Your task to perform on an android device: open device folders in google photos Image 0: 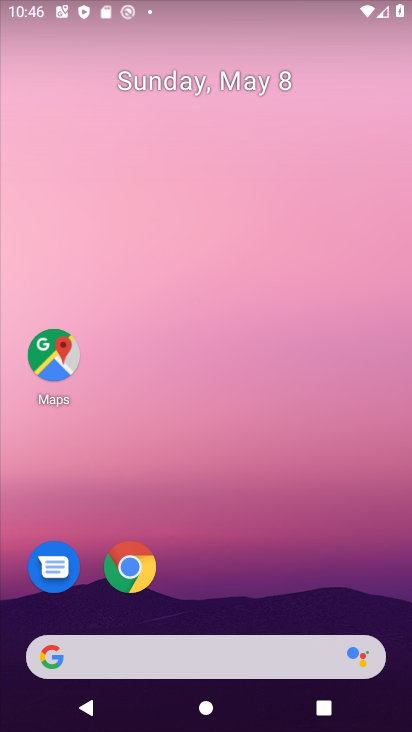
Step 0: drag from (223, 612) to (273, 79)
Your task to perform on an android device: open device folders in google photos Image 1: 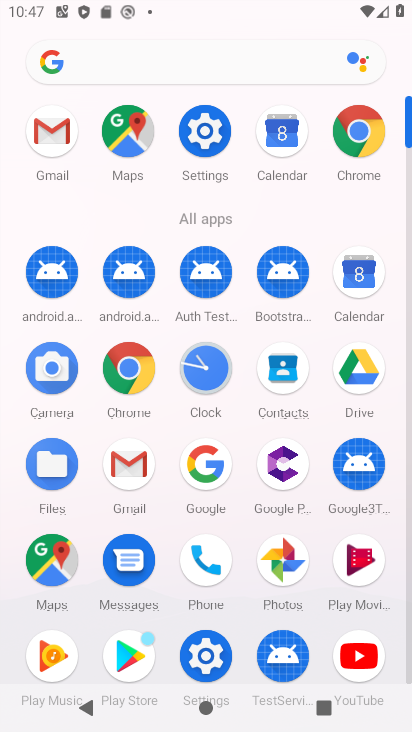
Step 1: click (280, 552)
Your task to perform on an android device: open device folders in google photos Image 2: 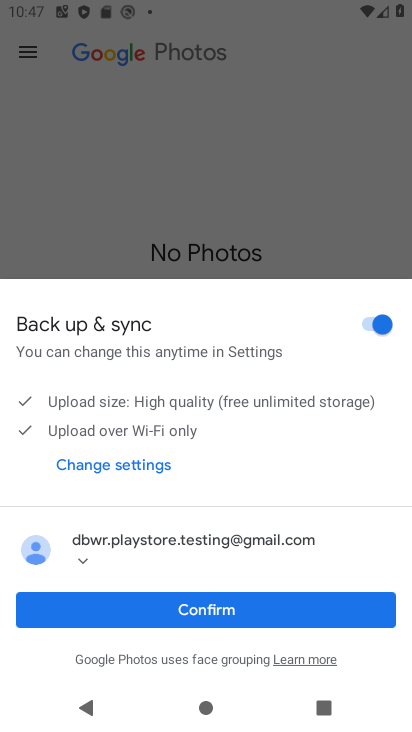
Step 2: click (205, 607)
Your task to perform on an android device: open device folders in google photos Image 3: 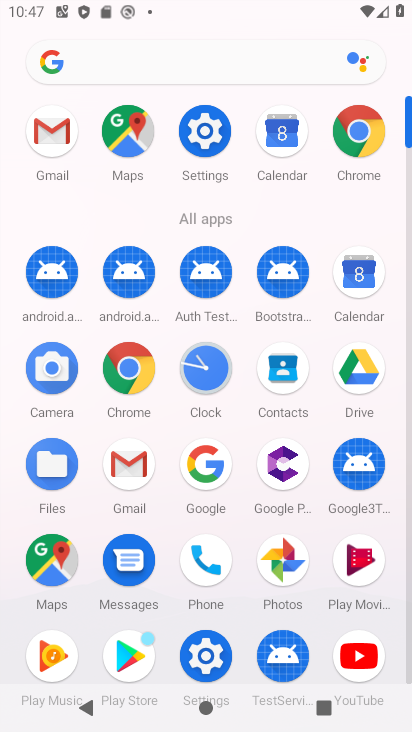
Step 3: click (277, 552)
Your task to perform on an android device: open device folders in google photos Image 4: 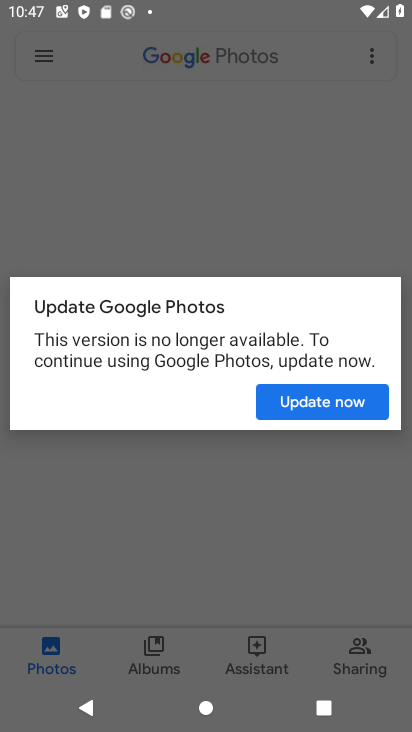
Step 4: click (331, 400)
Your task to perform on an android device: open device folders in google photos Image 5: 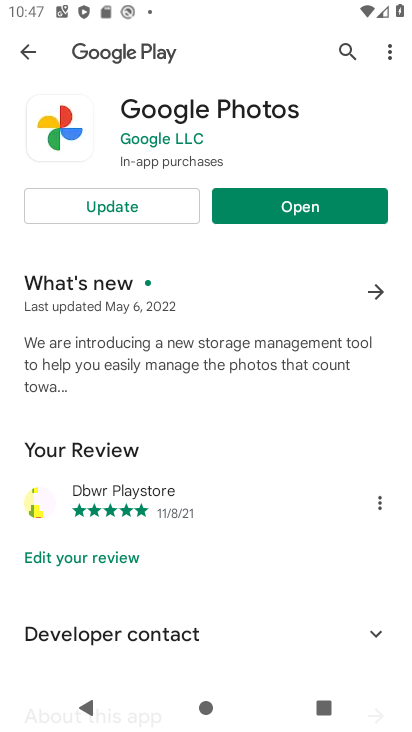
Step 5: click (129, 210)
Your task to perform on an android device: open device folders in google photos Image 6: 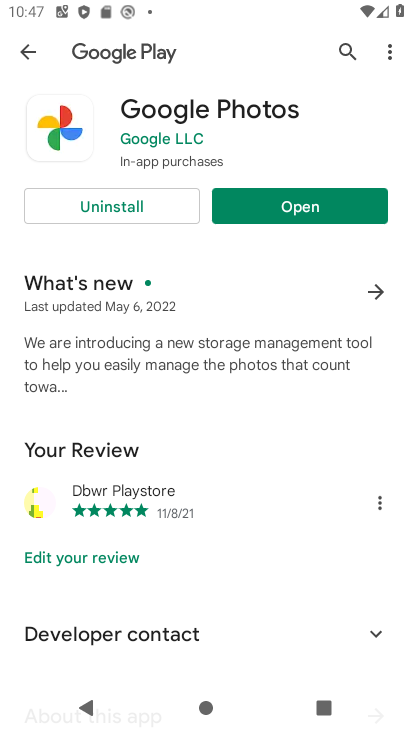
Step 6: click (306, 209)
Your task to perform on an android device: open device folders in google photos Image 7: 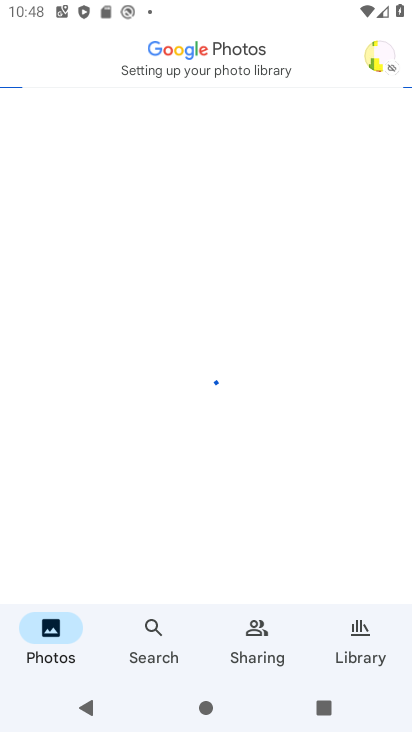
Step 7: click (375, 48)
Your task to perform on an android device: open device folders in google photos Image 8: 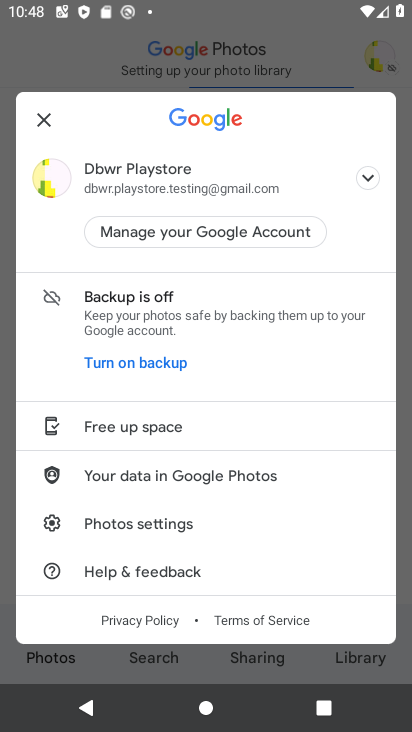
Step 8: click (123, 46)
Your task to perform on an android device: open device folders in google photos Image 9: 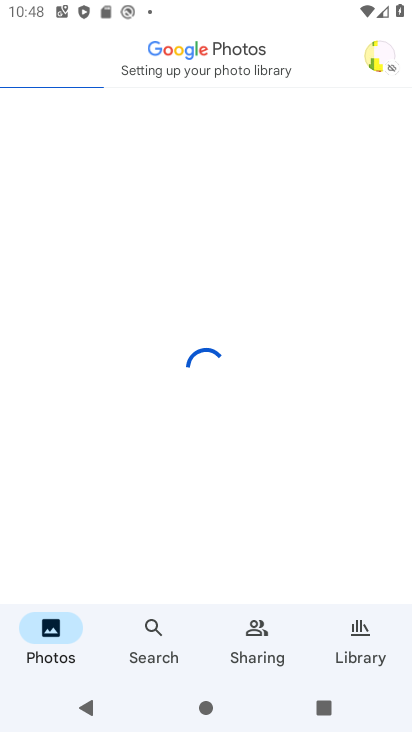
Step 9: click (152, 637)
Your task to perform on an android device: open device folders in google photos Image 10: 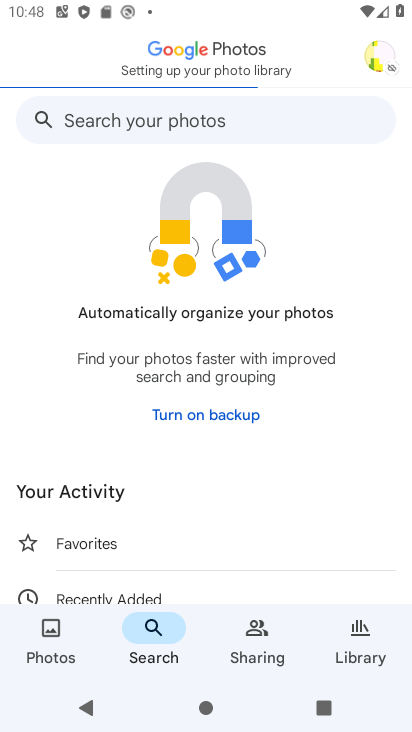
Step 10: click (140, 115)
Your task to perform on an android device: open device folders in google photos Image 11: 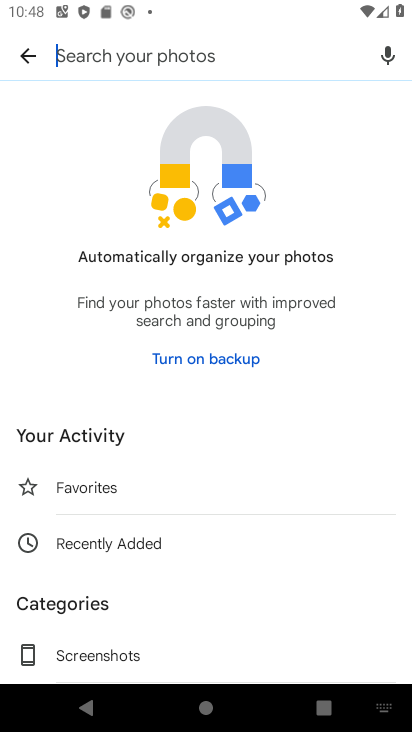
Step 11: type "device"
Your task to perform on an android device: open device folders in google photos Image 12: 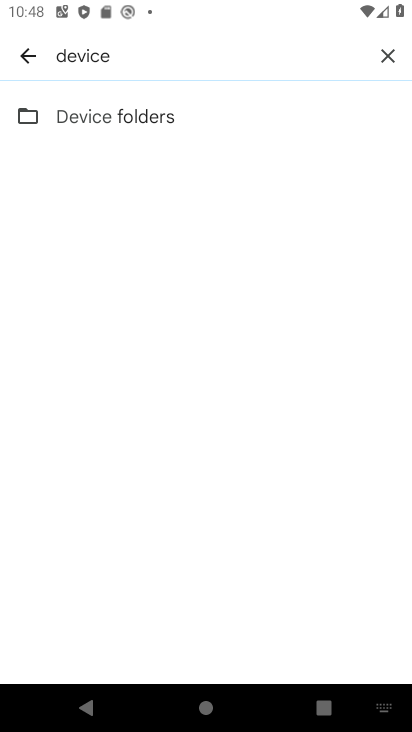
Step 12: click (142, 107)
Your task to perform on an android device: open device folders in google photos Image 13: 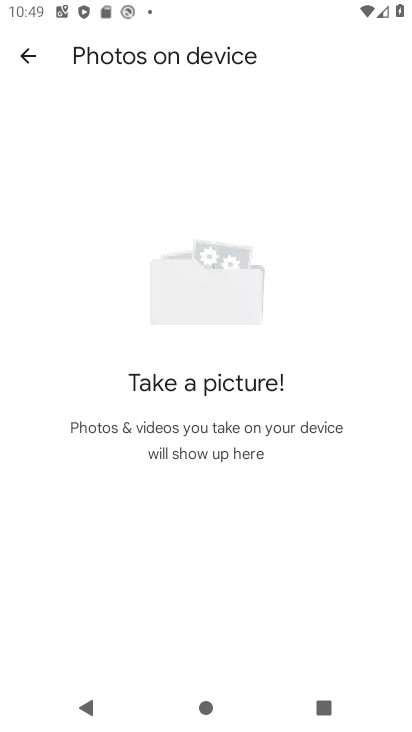
Step 13: task complete